Your task to perform on an android device: Search for flights from Boston to Zurich Image 0: 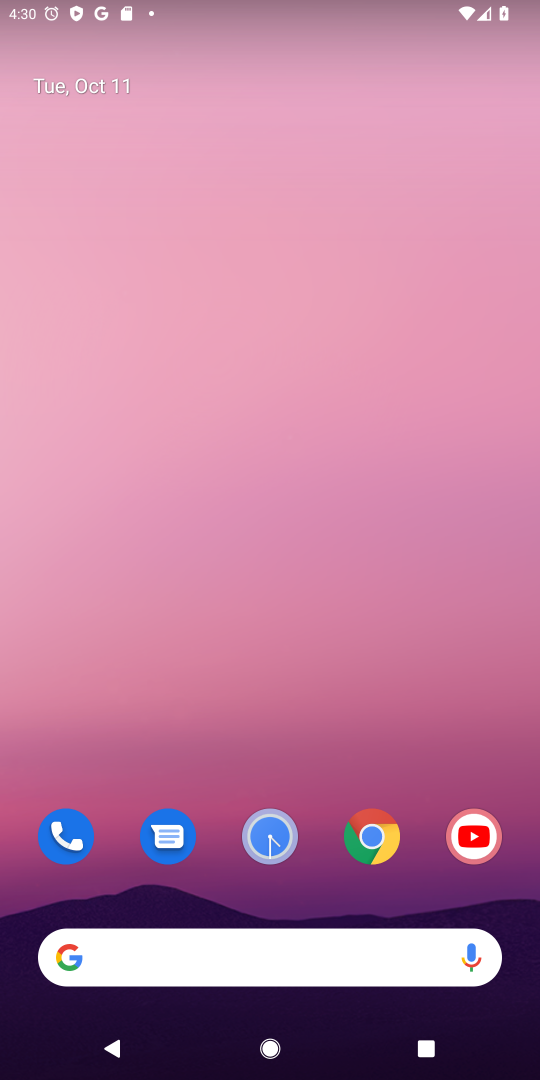
Step 0: click (220, 965)
Your task to perform on an android device: Search for flights from Boston to Zurich Image 1: 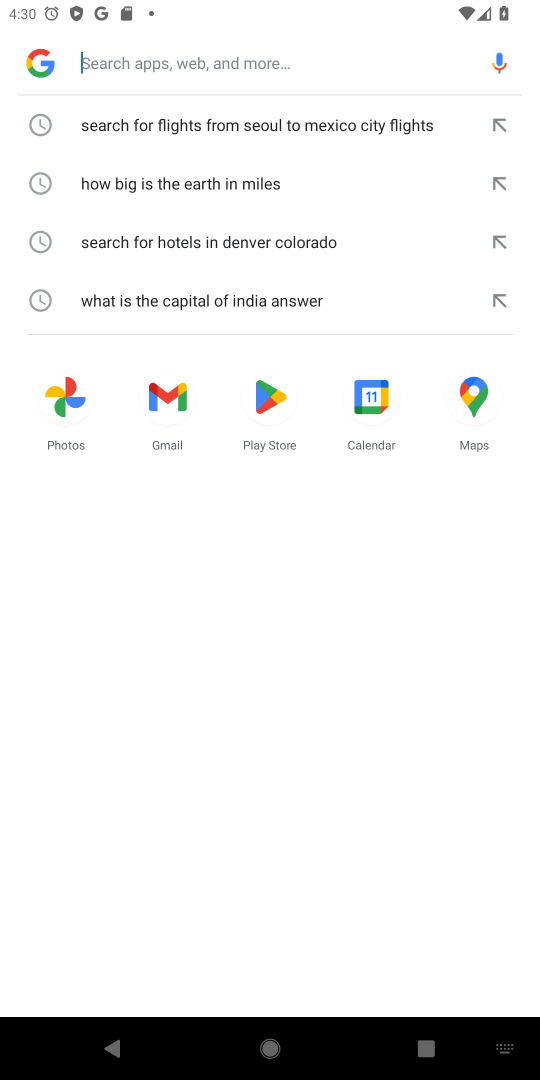
Step 1: type "Search for flights from Boston to Zurich"
Your task to perform on an android device: Search for flights from Boston to Zurich Image 2: 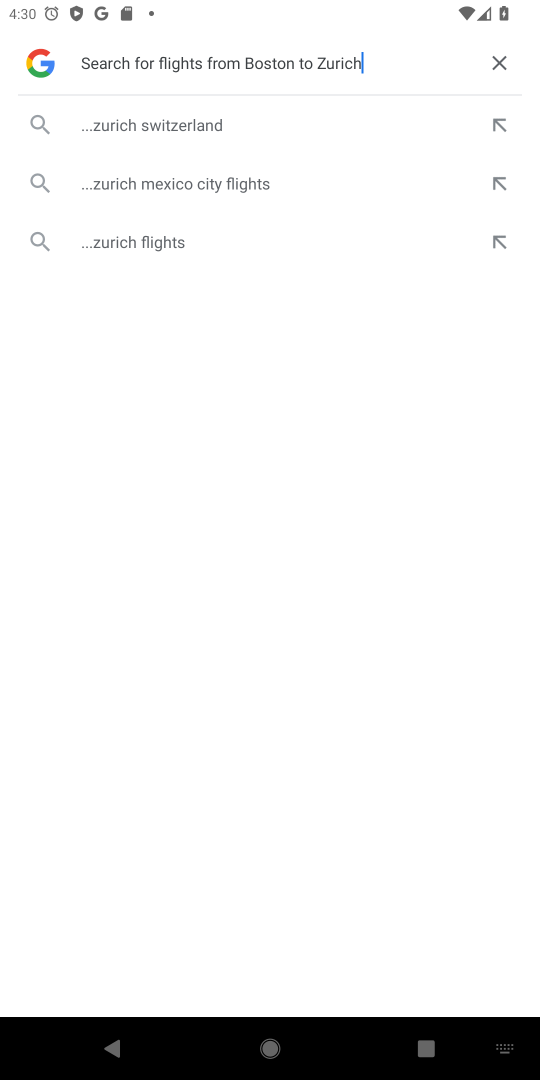
Step 2: click (208, 135)
Your task to perform on an android device: Search for flights from Boston to Zurich Image 3: 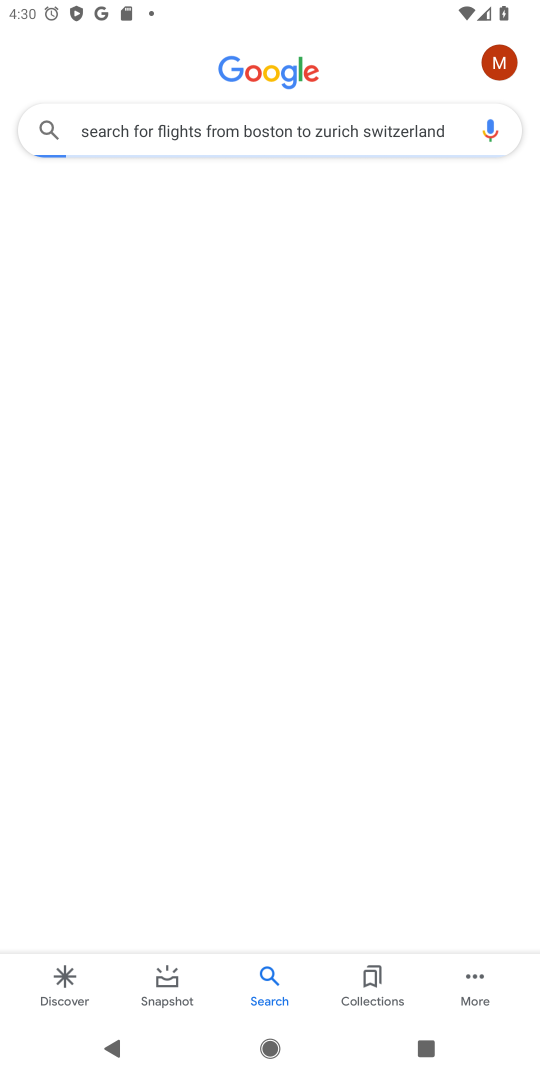
Step 3: task complete